Your task to perform on an android device: Open accessibility settings Image 0: 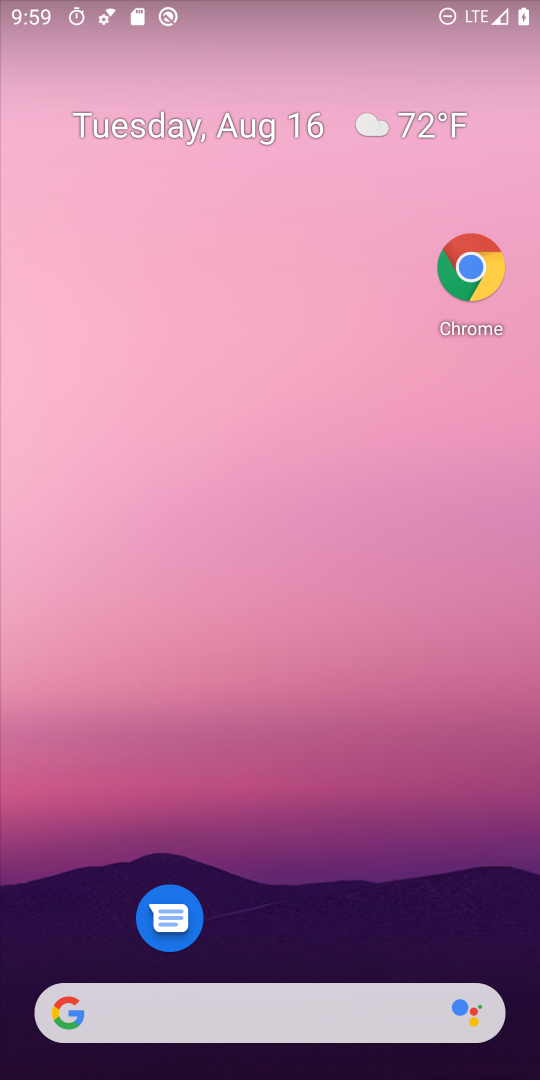
Step 0: drag from (277, 772) to (356, 192)
Your task to perform on an android device: Open accessibility settings Image 1: 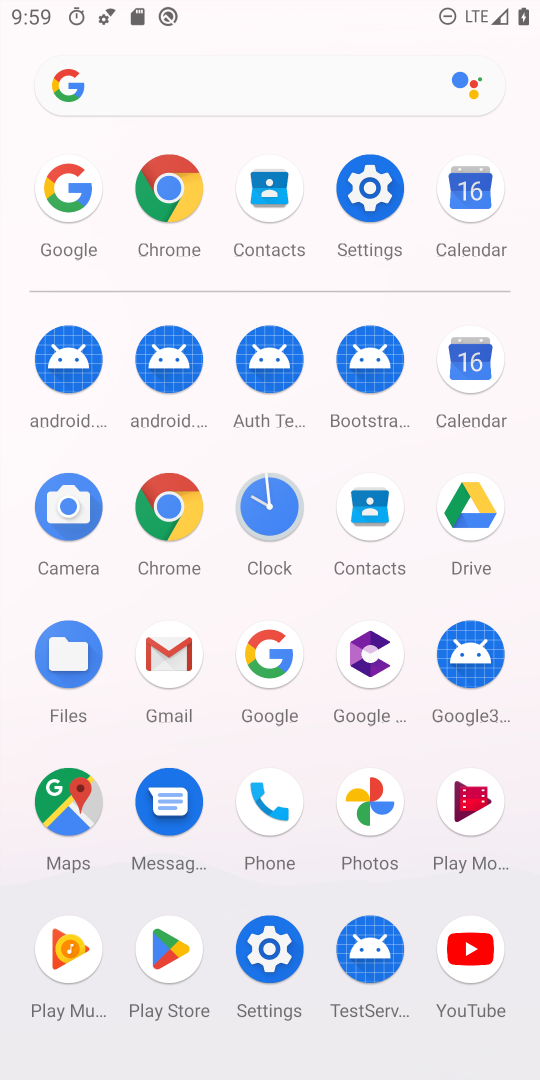
Step 1: click (372, 205)
Your task to perform on an android device: Open accessibility settings Image 2: 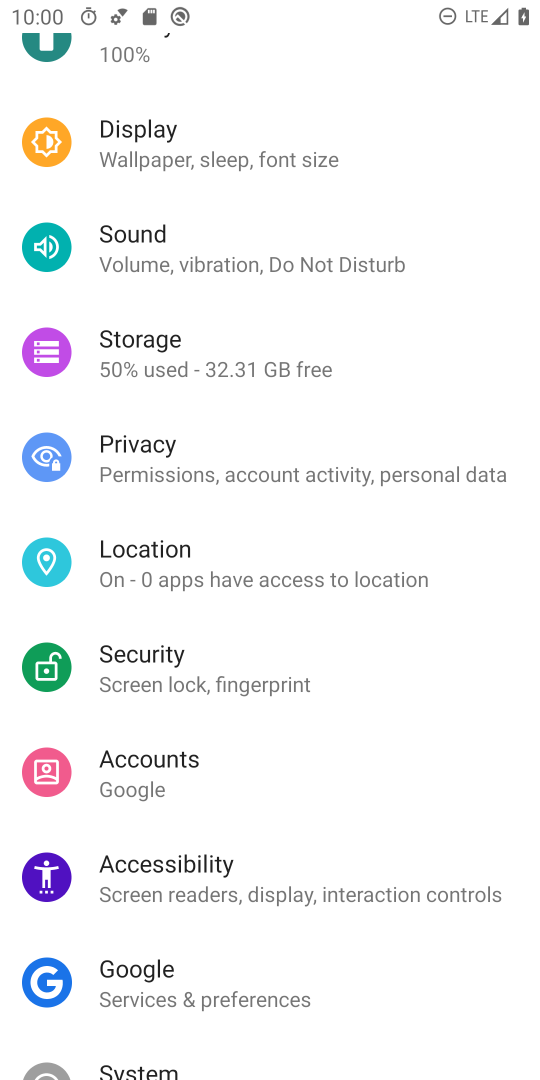
Step 2: click (240, 905)
Your task to perform on an android device: Open accessibility settings Image 3: 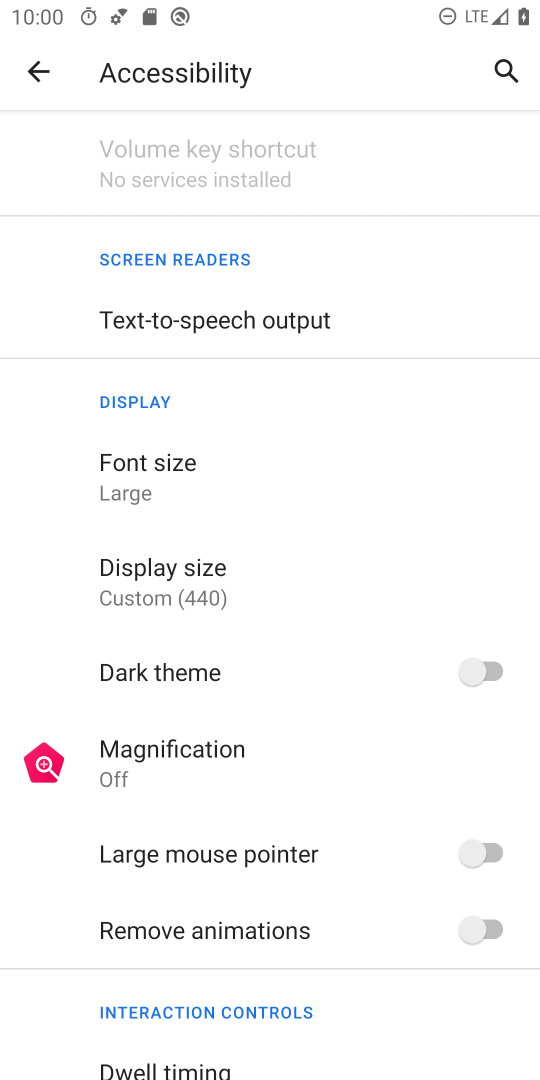
Step 3: click (298, 250)
Your task to perform on an android device: Open accessibility settings Image 4: 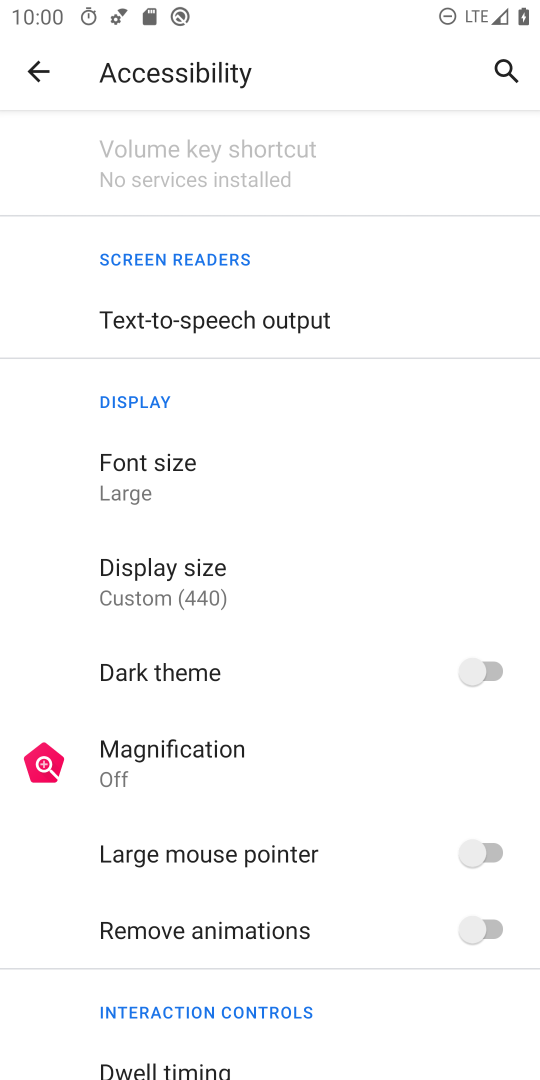
Step 4: task complete